Your task to perform on an android device: Open Google Maps Image 0: 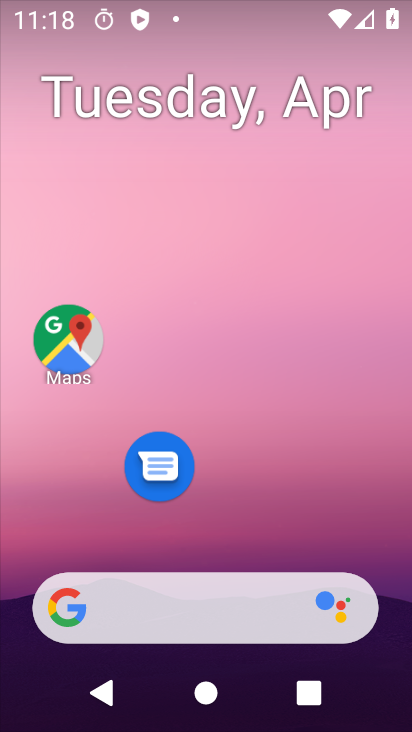
Step 0: click (71, 338)
Your task to perform on an android device: Open Google Maps Image 1: 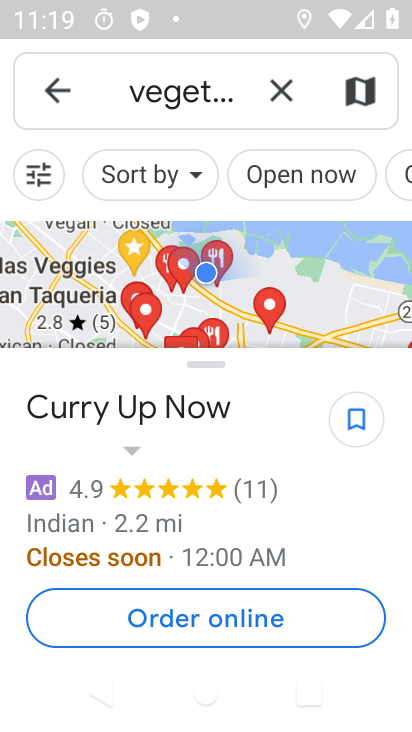
Step 1: task complete